Your task to perform on an android device: add a contact in the contacts app Image 0: 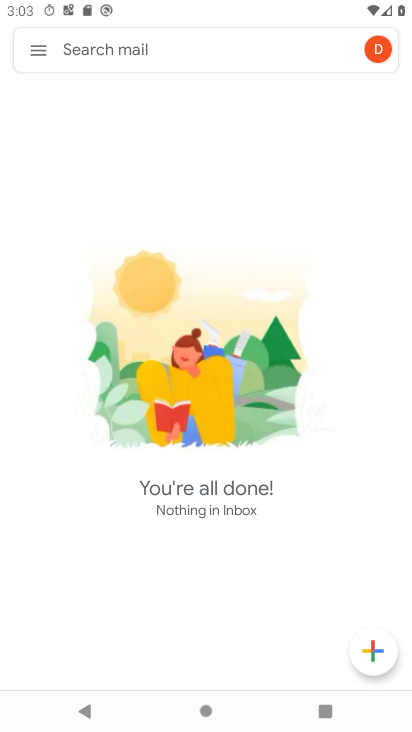
Step 0: press home button
Your task to perform on an android device: add a contact in the contacts app Image 1: 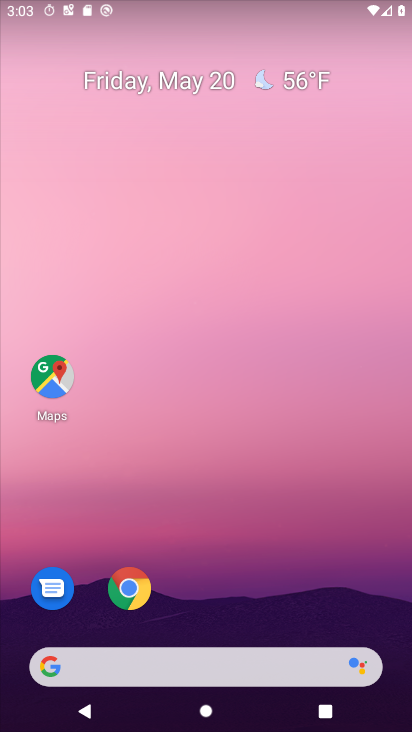
Step 1: drag from (14, 616) to (221, 159)
Your task to perform on an android device: add a contact in the contacts app Image 2: 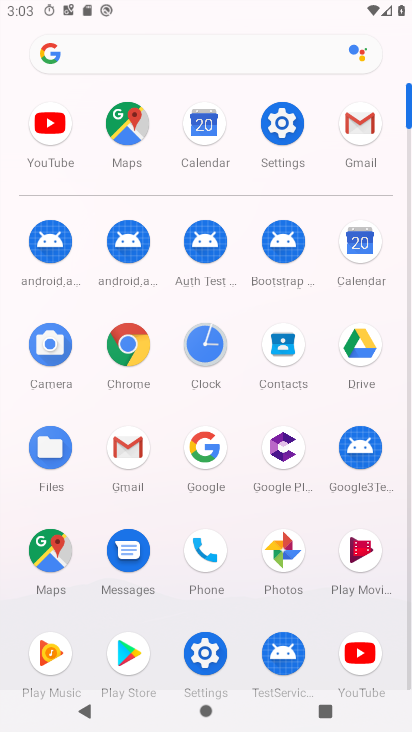
Step 2: click (221, 547)
Your task to perform on an android device: add a contact in the contacts app Image 3: 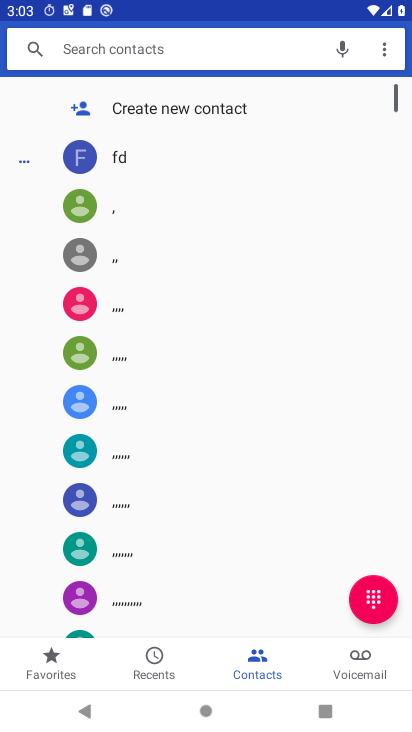
Step 3: click (144, 106)
Your task to perform on an android device: add a contact in the contacts app Image 4: 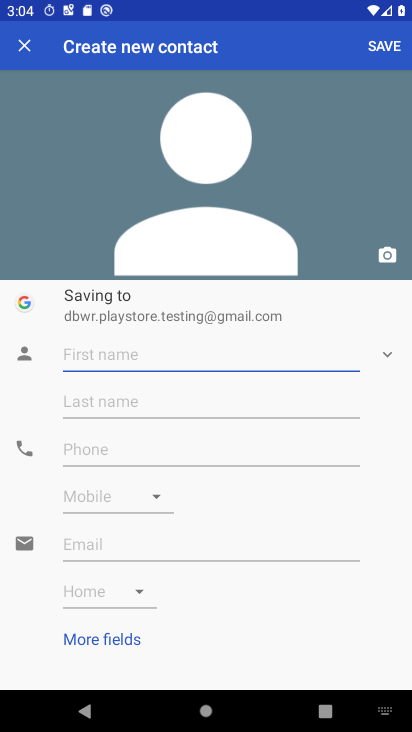
Step 4: click (179, 354)
Your task to perform on an android device: add a contact in the contacts app Image 5: 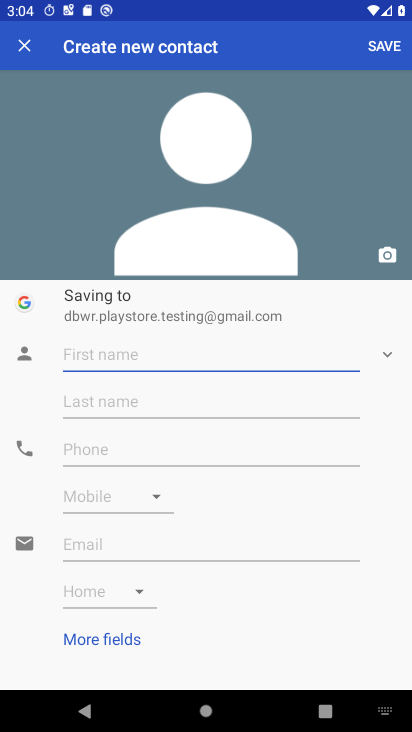
Step 5: type "cdfregh"
Your task to perform on an android device: add a contact in the contacts app Image 6: 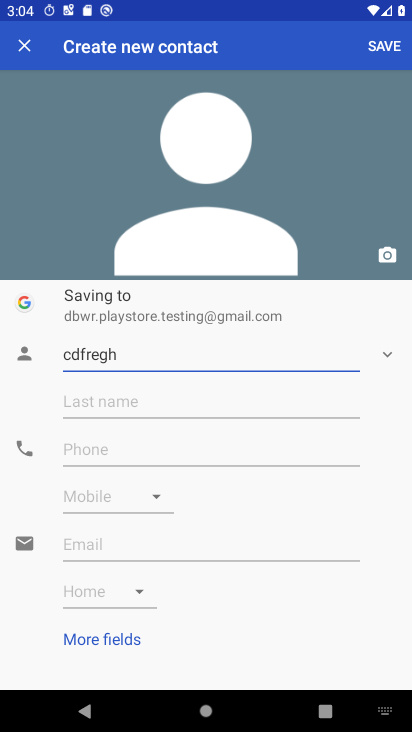
Step 6: click (383, 34)
Your task to perform on an android device: add a contact in the contacts app Image 7: 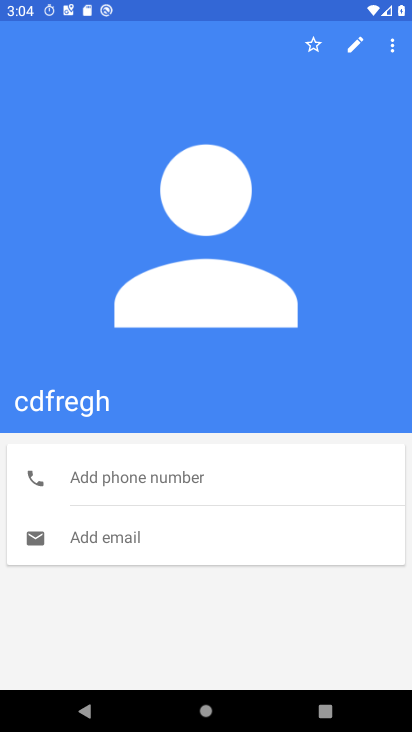
Step 7: task complete